Your task to perform on an android device: Open Google Chrome Image 0: 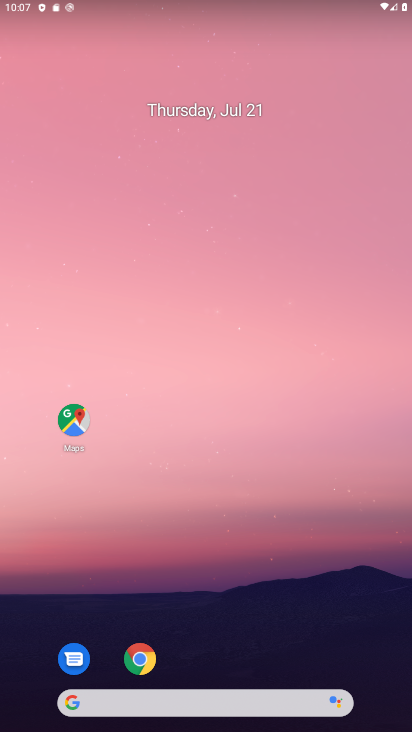
Step 0: click (135, 658)
Your task to perform on an android device: Open Google Chrome Image 1: 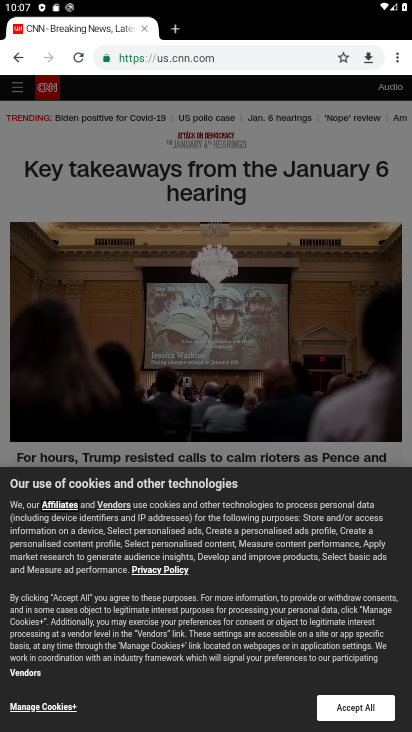
Step 1: task complete